Your task to perform on an android device: Find coffee shops on Maps Image 0: 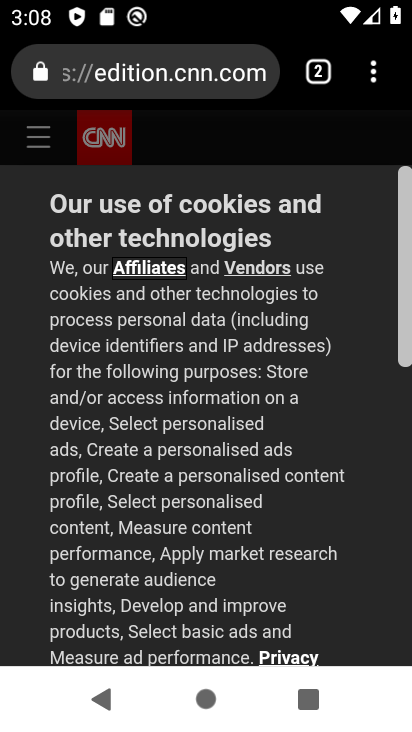
Step 0: press home button
Your task to perform on an android device: Find coffee shops on Maps Image 1: 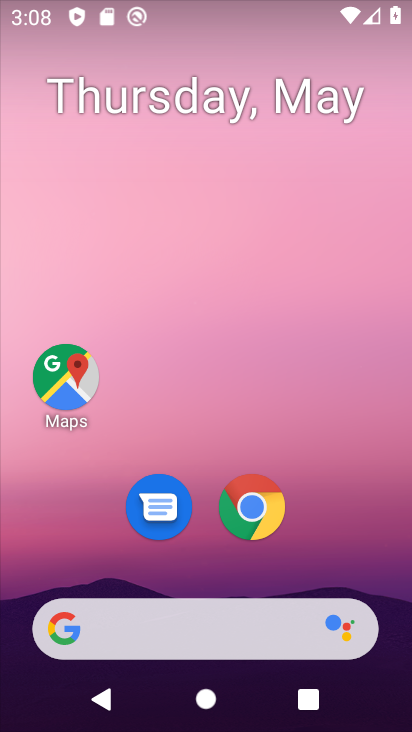
Step 1: click (64, 377)
Your task to perform on an android device: Find coffee shops on Maps Image 2: 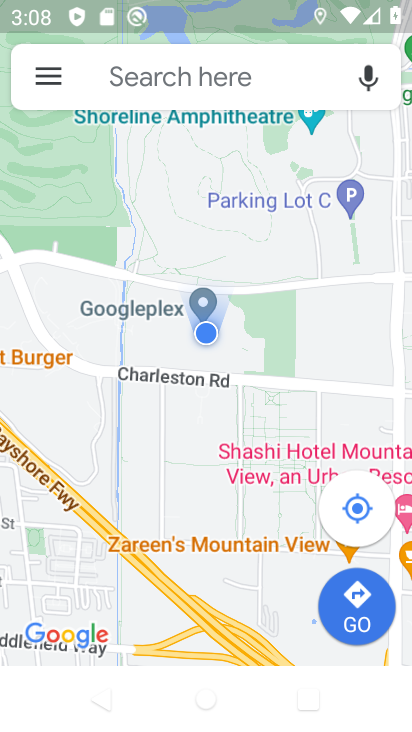
Step 2: click (162, 75)
Your task to perform on an android device: Find coffee shops on Maps Image 3: 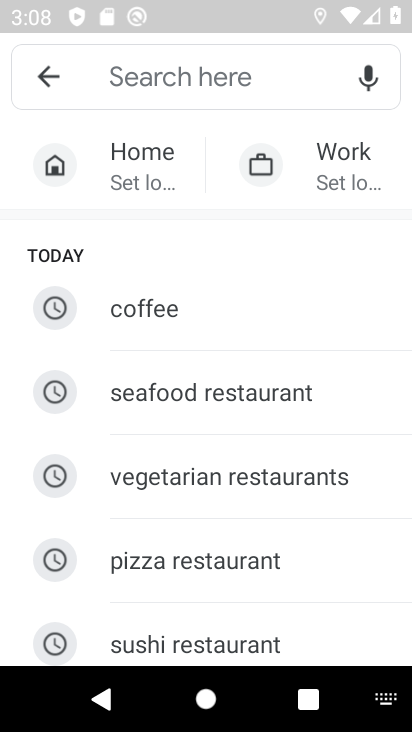
Step 3: type "coffee shops"
Your task to perform on an android device: Find coffee shops on Maps Image 4: 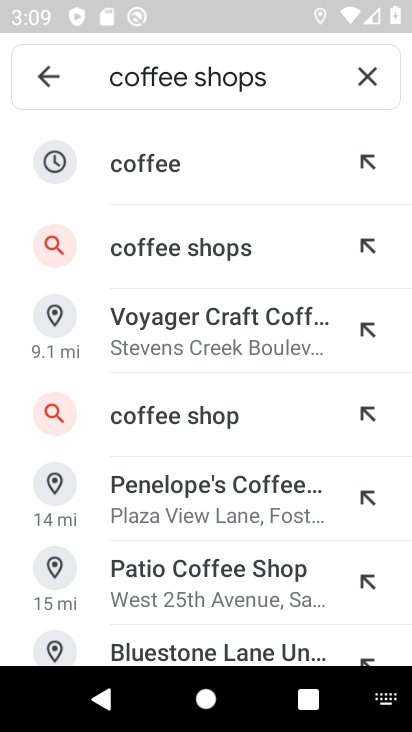
Step 4: click (167, 243)
Your task to perform on an android device: Find coffee shops on Maps Image 5: 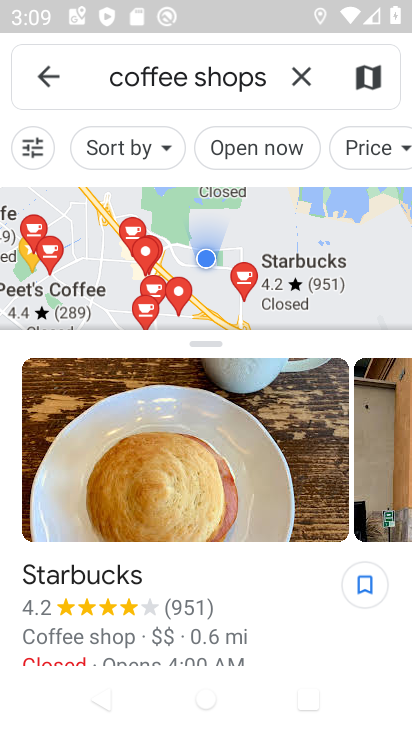
Step 5: task complete